Your task to perform on an android device: Check the weather Image 0: 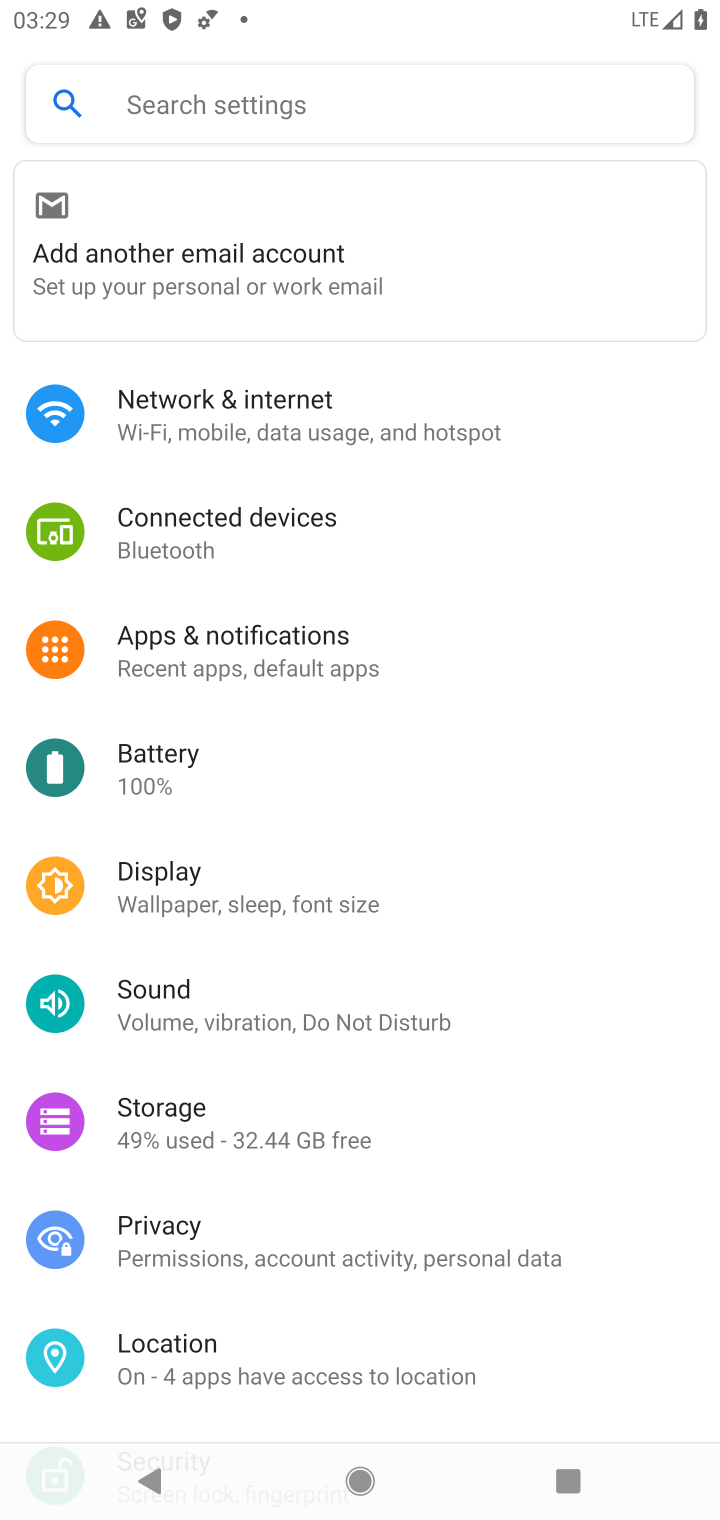
Step 0: press back button
Your task to perform on an android device: Check the weather Image 1: 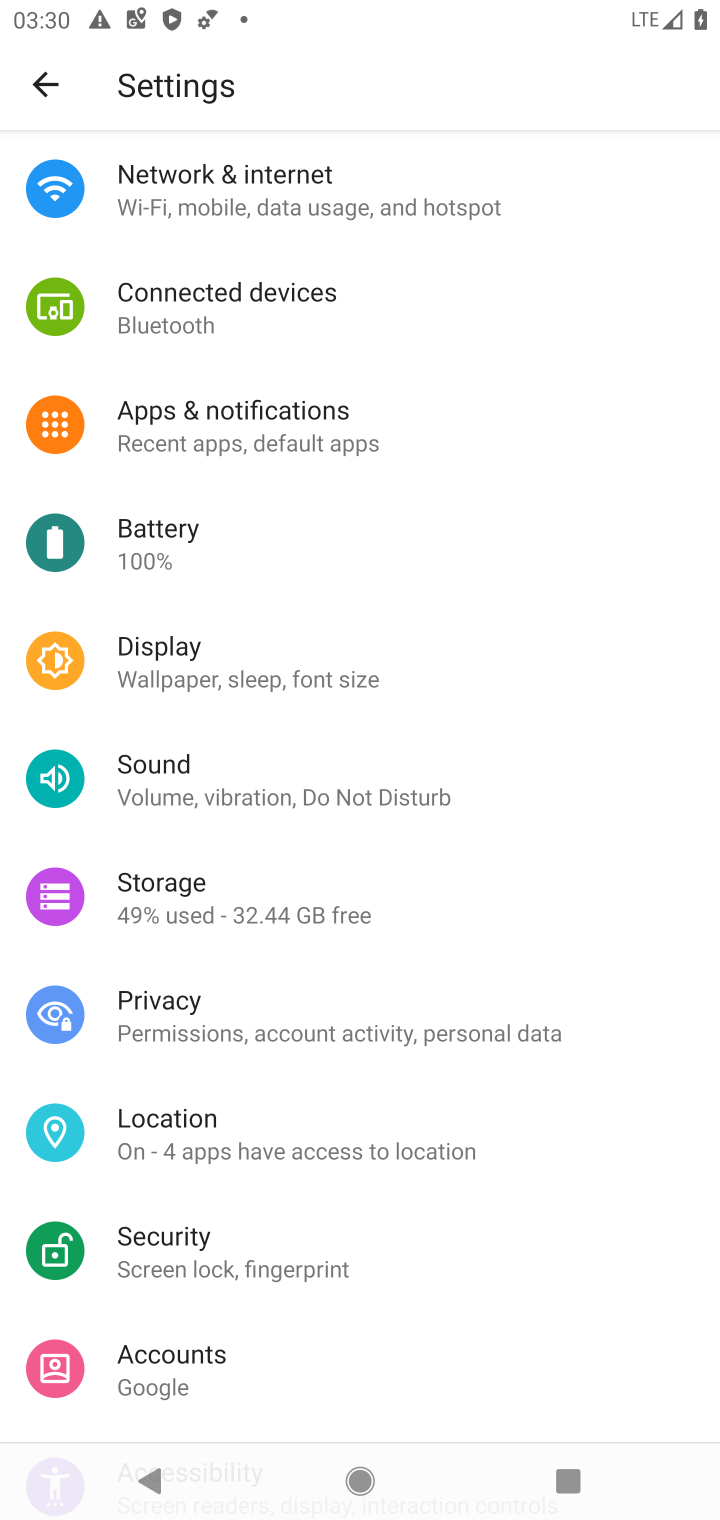
Step 1: press home button
Your task to perform on an android device: Check the weather Image 2: 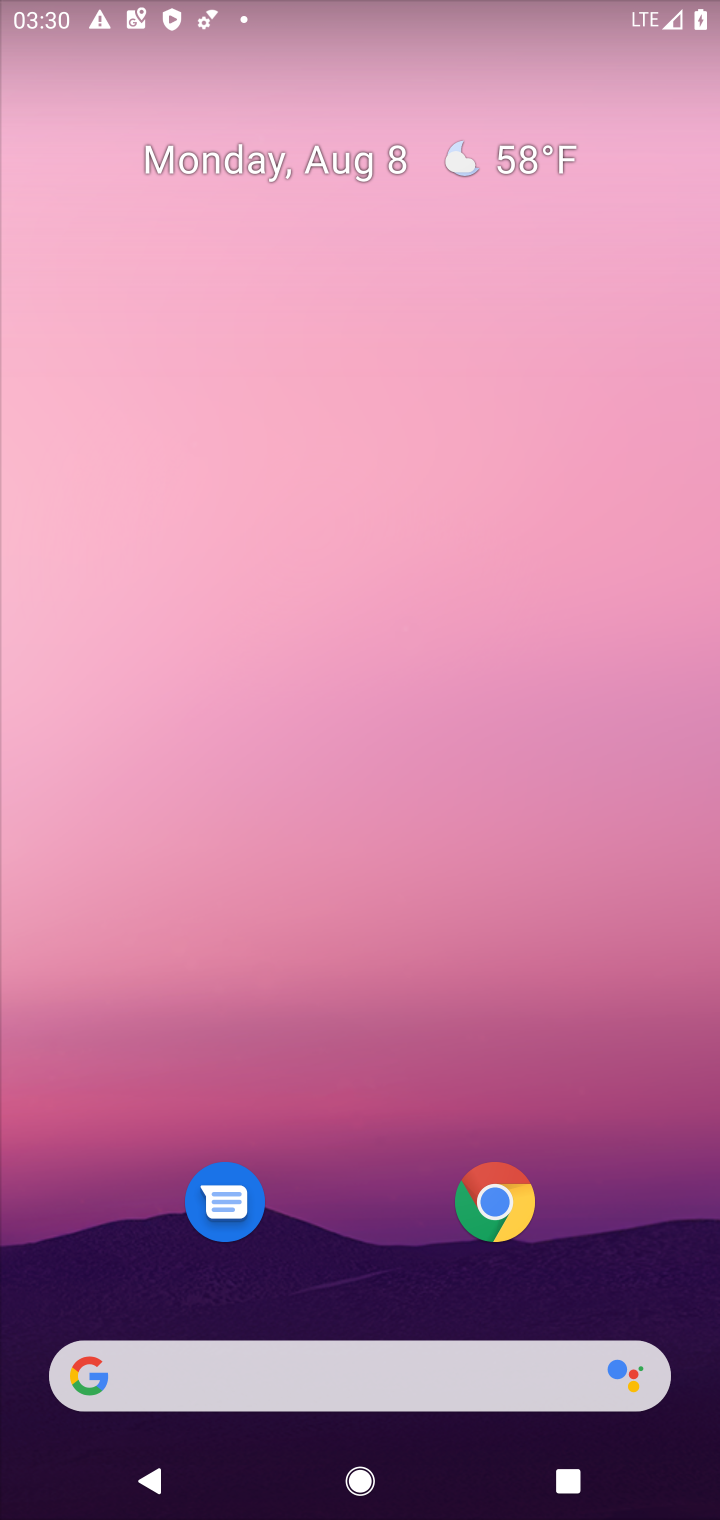
Step 2: click (440, 1370)
Your task to perform on an android device: Check the weather Image 3: 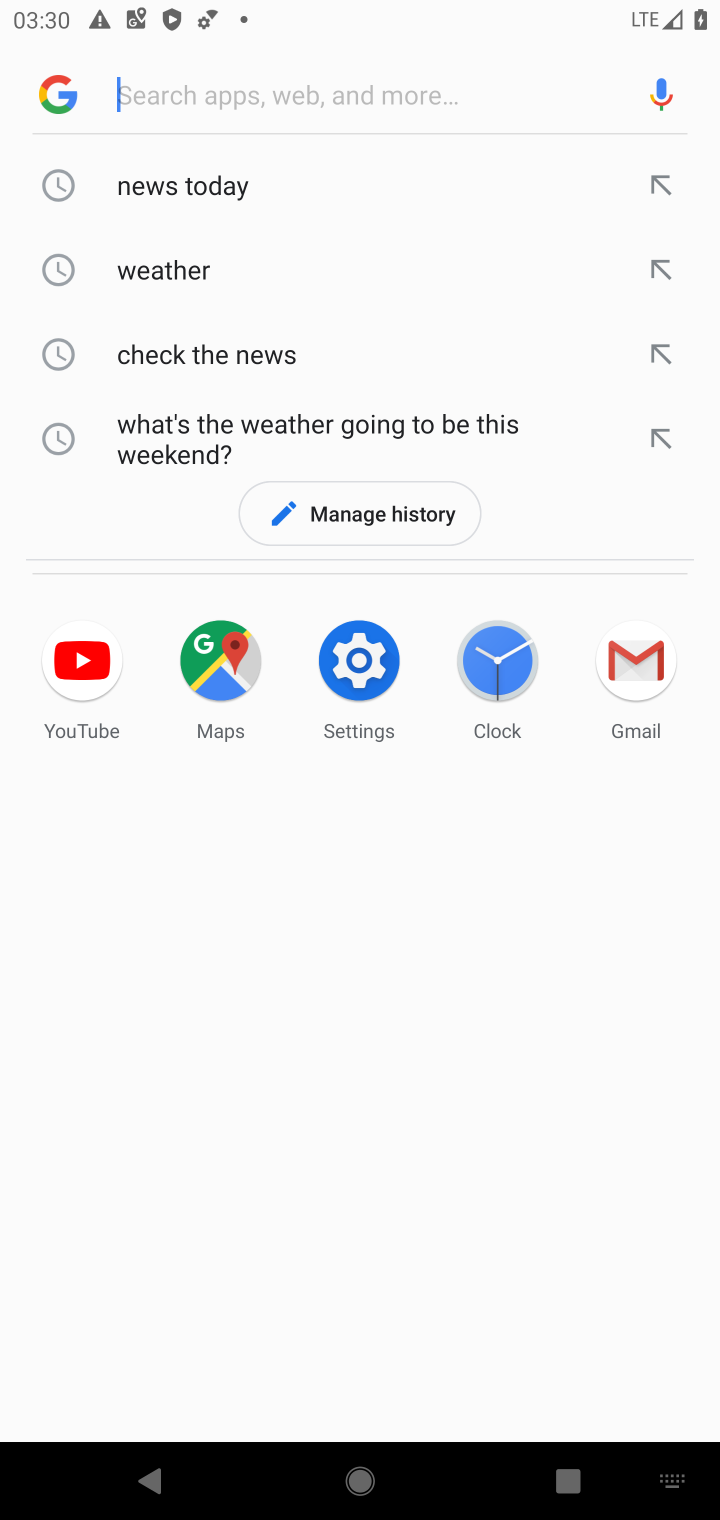
Step 3: click (167, 280)
Your task to perform on an android device: Check the weather Image 4: 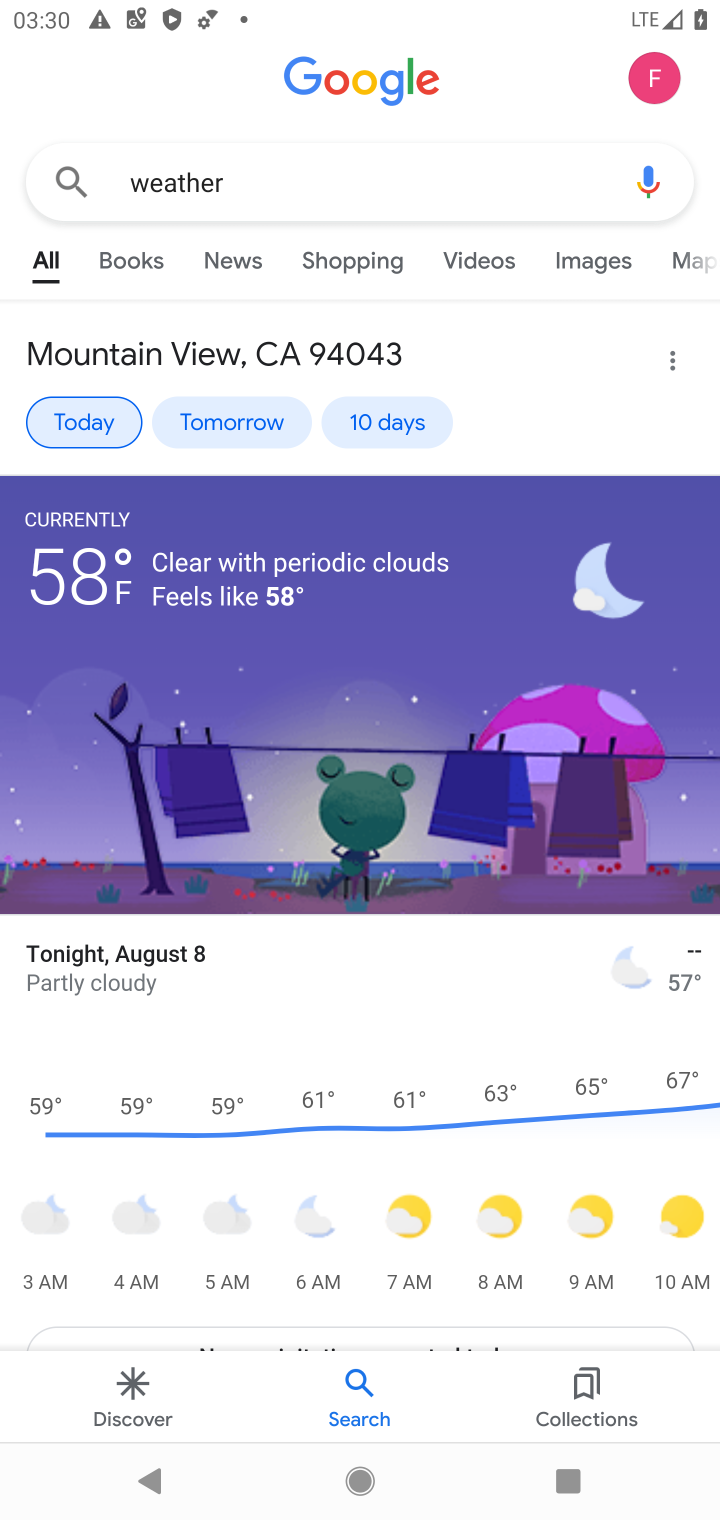
Step 4: task complete